Your task to perform on an android device: Open settings Image 0: 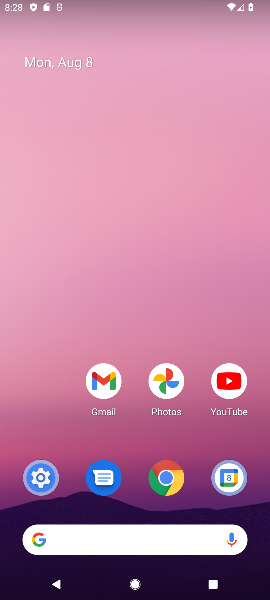
Step 0: click (41, 476)
Your task to perform on an android device: Open settings Image 1: 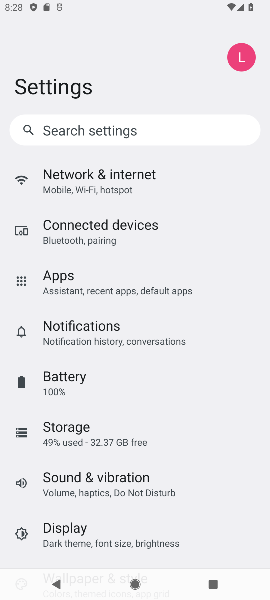
Step 1: task complete